Your task to perform on an android device: toggle priority inbox in the gmail app Image 0: 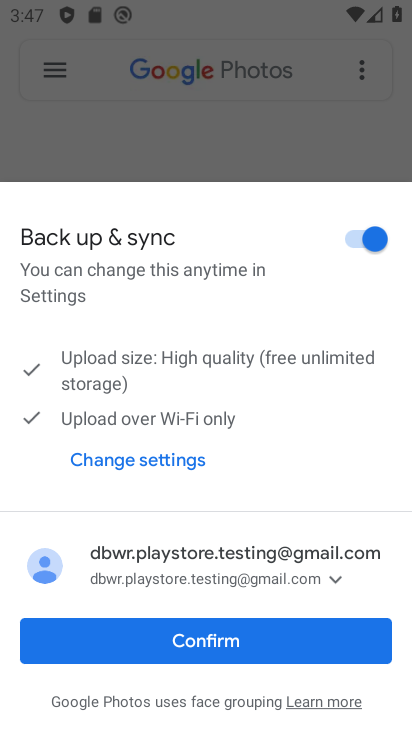
Step 0: press home button
Your task to perform on an android device: toggle priority inbox in the gmail app Image 1: 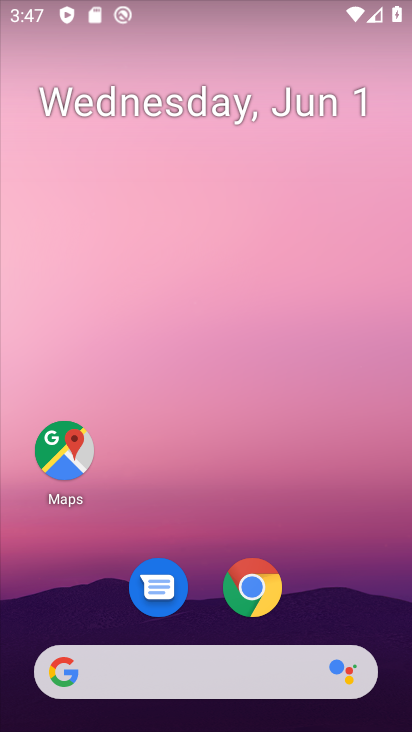
Step 1: drag from (331, 579) to (287, 67)
Your task to perform on an android device: toggle priority inbox in the gmail app Image 2: 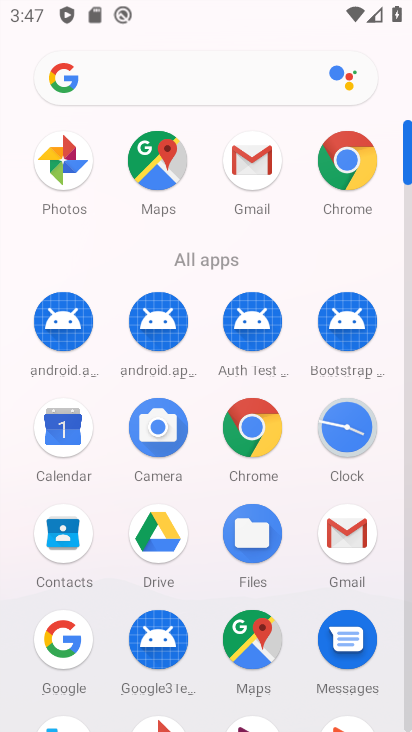
Step 2: click (244, 161)
Your task to perform on an android device: toggle priority inbox in the gmail app Image 3: 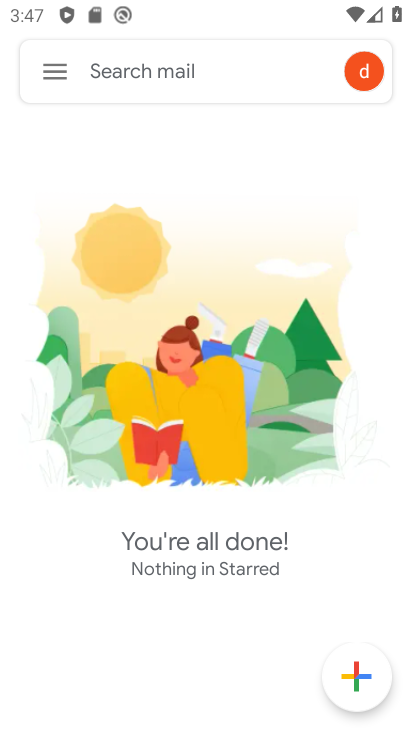
Step 3: click (46, 75)
Your task to perform on an android device: toggle priority inbox in the gmail app Image 4: 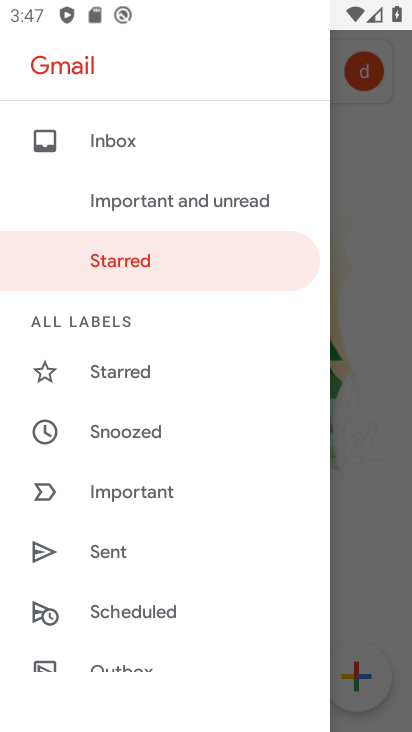
Step 4: drag from (124, 404) to (174, 325)
Your task to perform on an android device: toggle priority inbox in the gmail app Image 5: 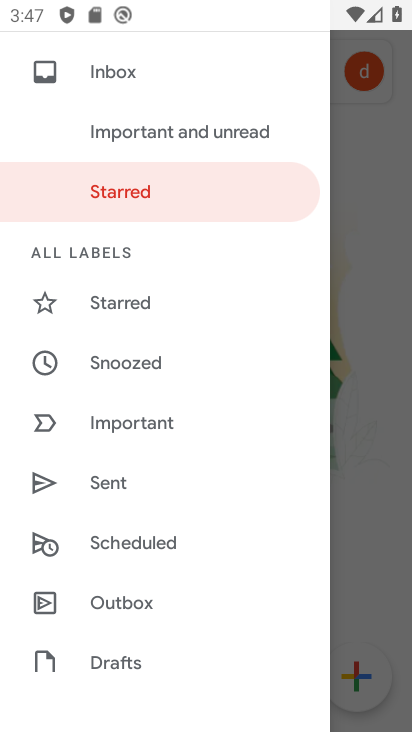
Step 5: drag from (126, 503) to (176, 445)
Your task to perform on an android device: toggle priority inbox in the gmail app Image 6: 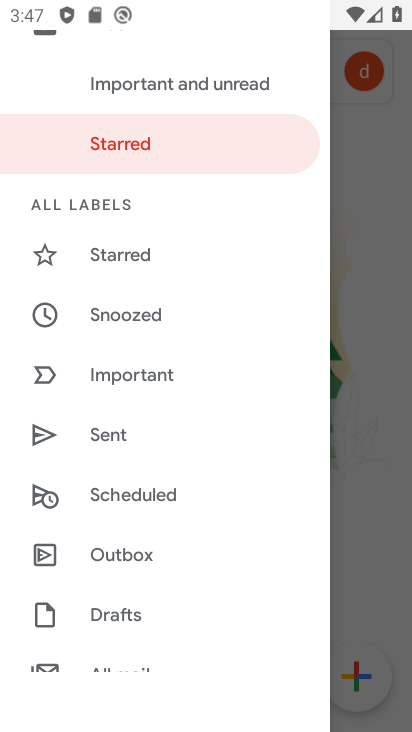
Step 6: drag from (102, 578) to (184, 491)
Your task to perform on an android device: toggle priority inbox in the gmail app Image 7: 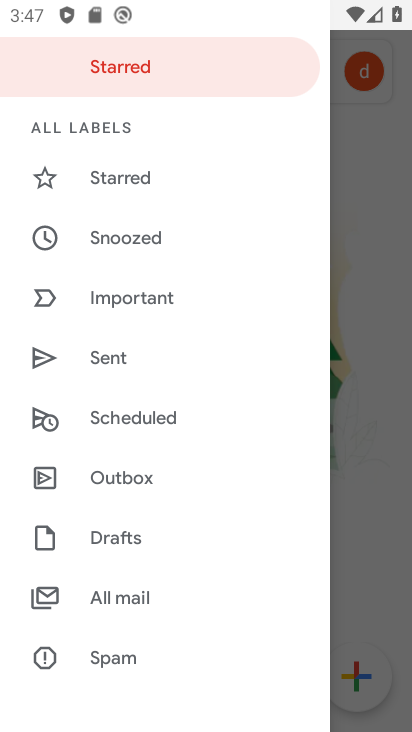
Step 7: drag from (130, 573) to (206, 487)
Your task to perform on an android device: toggle priority inbox in the gmail app Image 8: 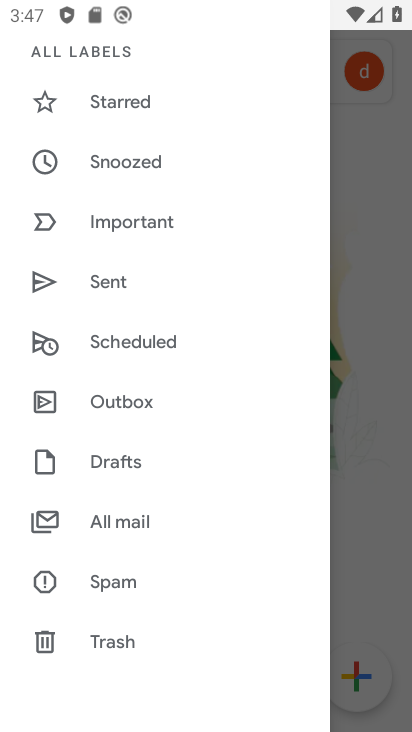
Step 8: drag from (138, 586) to (203, 508)
Your task to perform on an android device: toggle priority inbox in the gmail app Image 9: 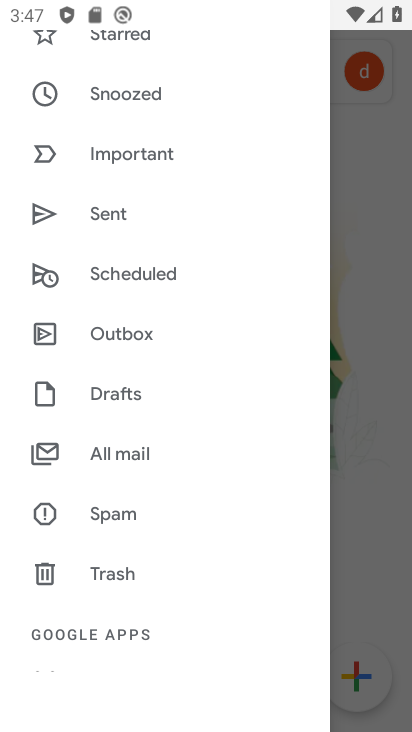
Step 9: drag from (107, 606) to (171, 529)
Your task to perform on an android device: toggle priority inbox in the gmail app Image 10: 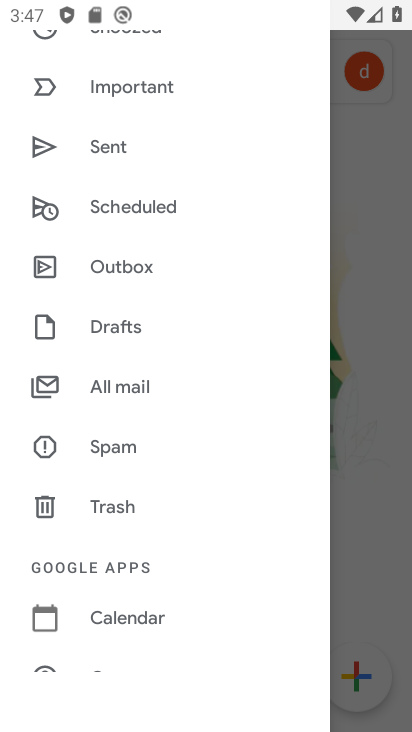
Step 10: drag from (100, 636) to (157, 549)
Your task to perform on an android device: toggle priority inbox in the gmail app Image 11: 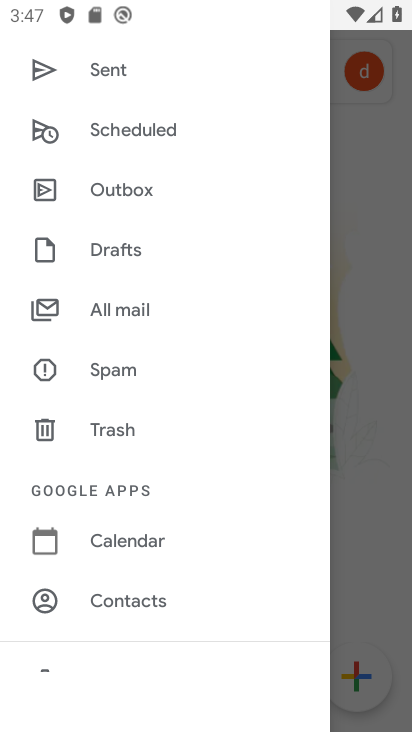
Step 11: drag from (85, 645) to (172, 542)
Your task to perform on an android device: toggle priority inbox in the gmail app Image 12: 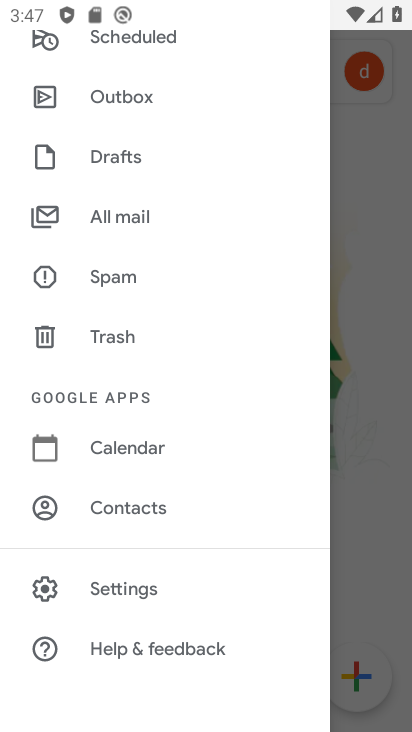
Step 12: click (119, 592)
Your task to perform on an android device: toggle priority inbox in the gmail app Image 13: 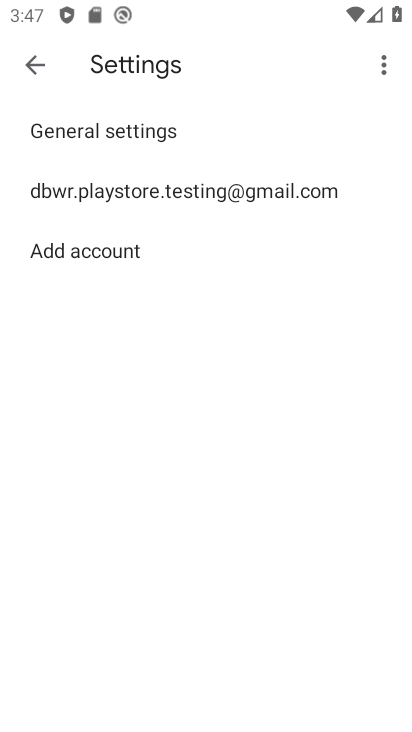
Step 13: click (218, 192)
Your task to perform on an android device: toggle priority inbox in the gmail app Image 14: 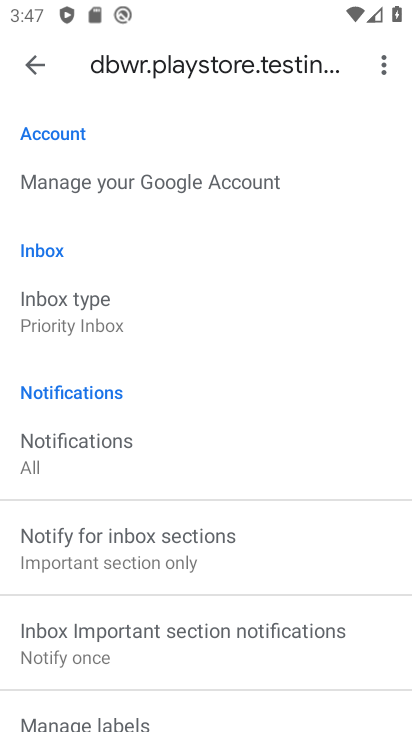
Step 14: click (97, 317)
Your task to perform on an android device: toggle priority inbox in the gmail app Image 15: 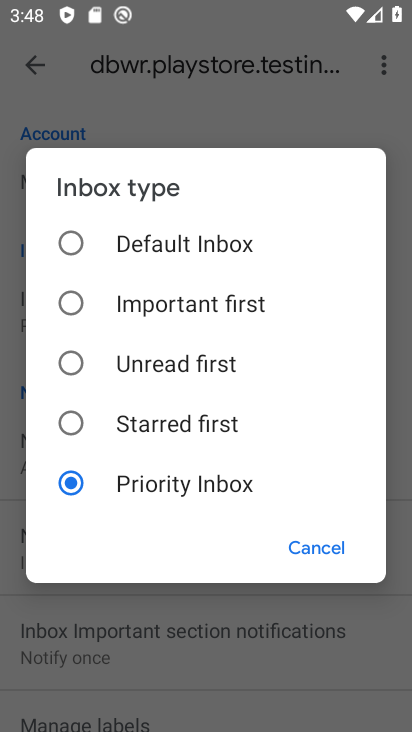
Step 15: click (70, 245)
Your task to perform on an android device: toggle priority inbox in the gmail app Image 16: 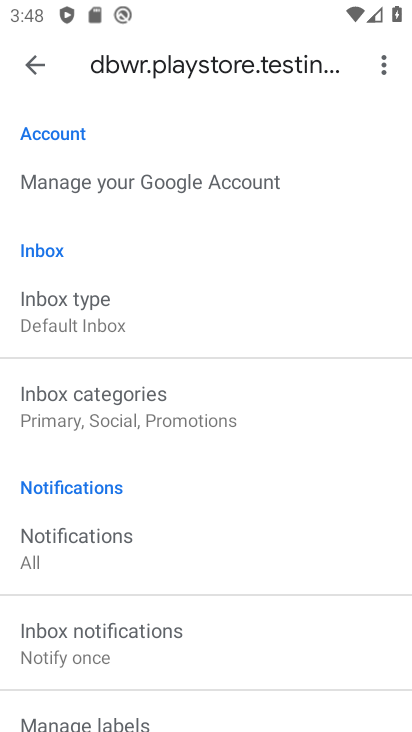
Step 16: task complete